Your task to perform on an android device: What is the speed of a cheetah? Image 0: 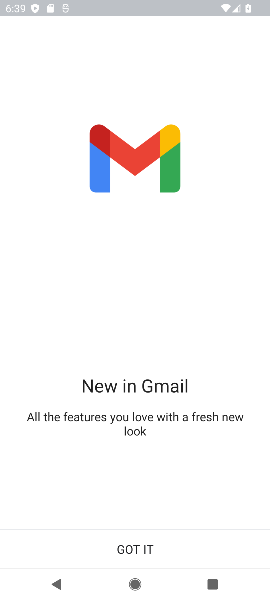
Step 0: press home button
Your task to perform on an android device: What is the speed of a cheetah? Image 1: 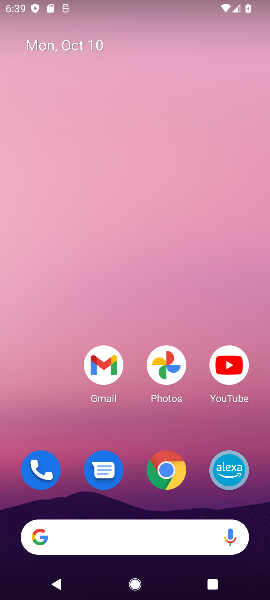
Step 1: click (177, 471)
Your task to perform on an android device: What is the speed of a cheetah? Image 2: 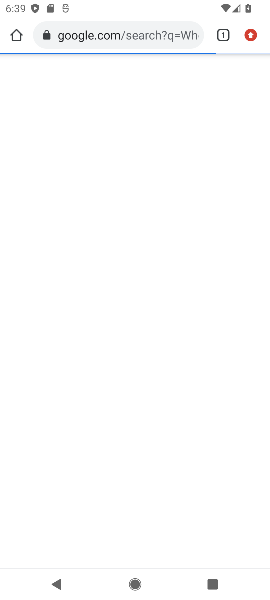
Step 2: click (115, 39)
Your task to perform on an android device: What is the speed of a cheetah? Image 3: 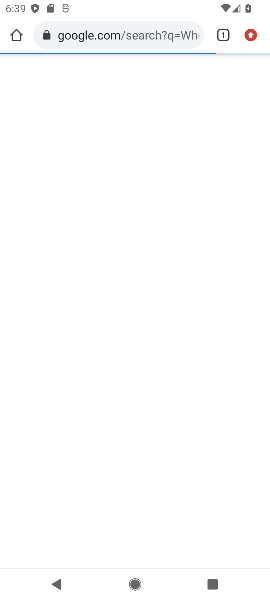
Step 3: click (115, 39)
Your task to perform on an android device: What is the speed of a cheetah? Image 4: 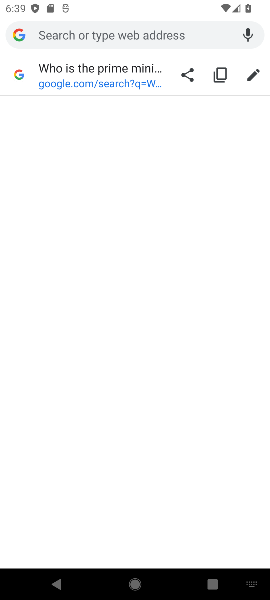
Step 4: type "What is the speed of a cheetah?"
Your task to perform on an android device: What is the speed of a cheetah? Image 5: 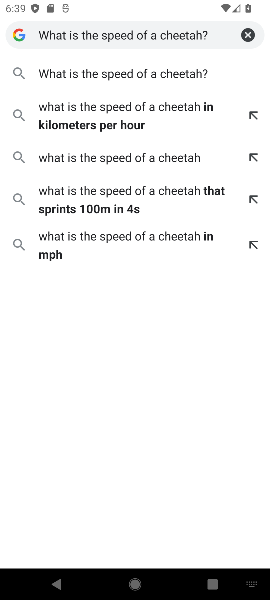
Step 5: click (153, 70)
Your task to perform on an android device: What is the speed of a cheetah? Image 6: 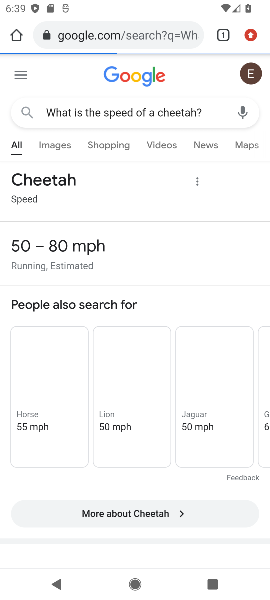
Step 6: click (153, 70)
Your task to perform on an android device: What is the speed of a cheetah? Image 7: 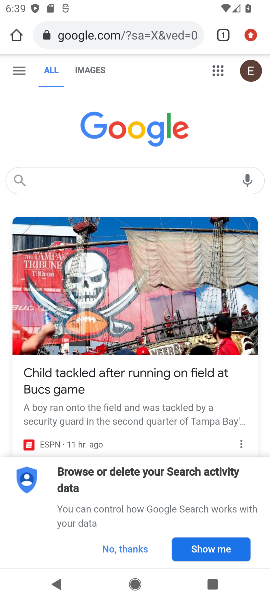
Step 7: task complete